Your task to perform on an android device: Open maps Image 0: 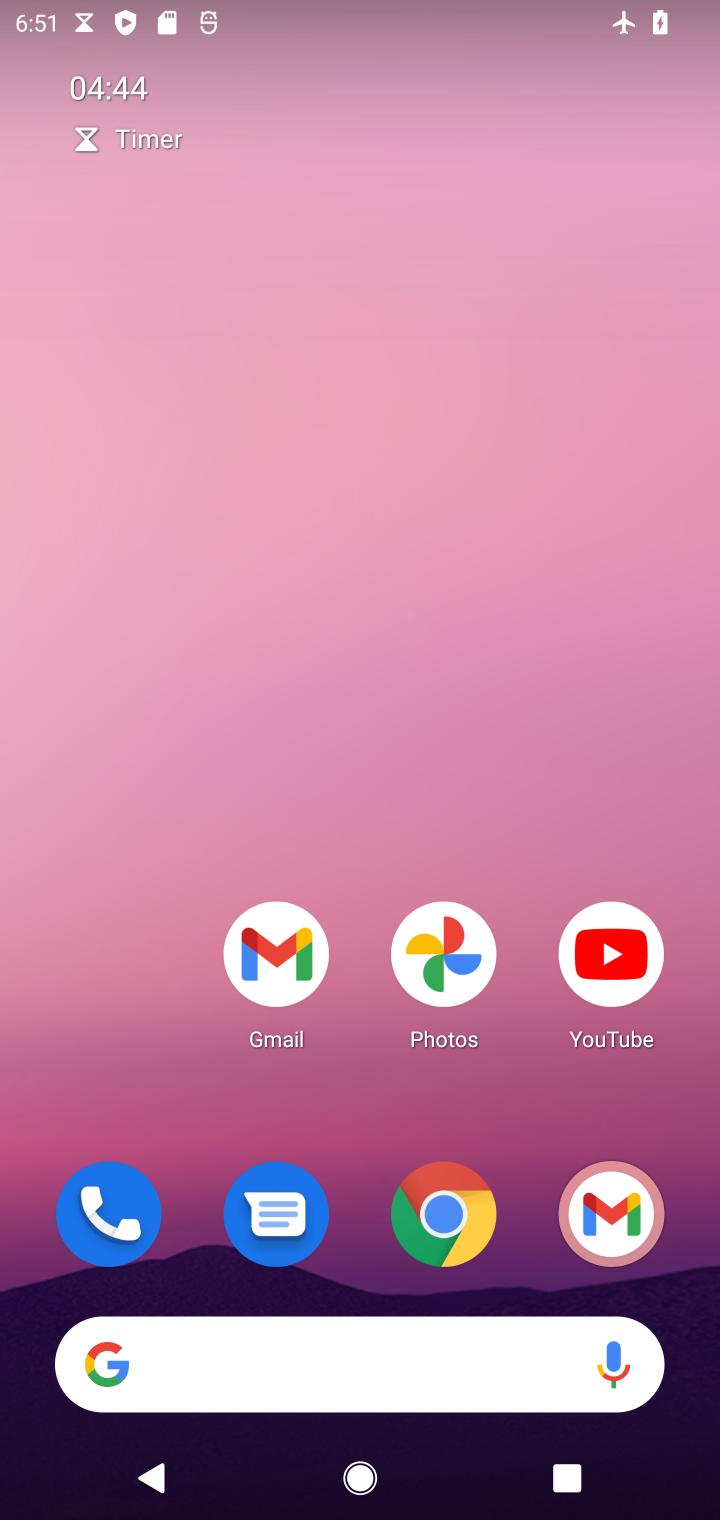
Step 0: drag from (352, 1295) to (428, 499)
Your task to perform on an android device: Open maps Image 1: 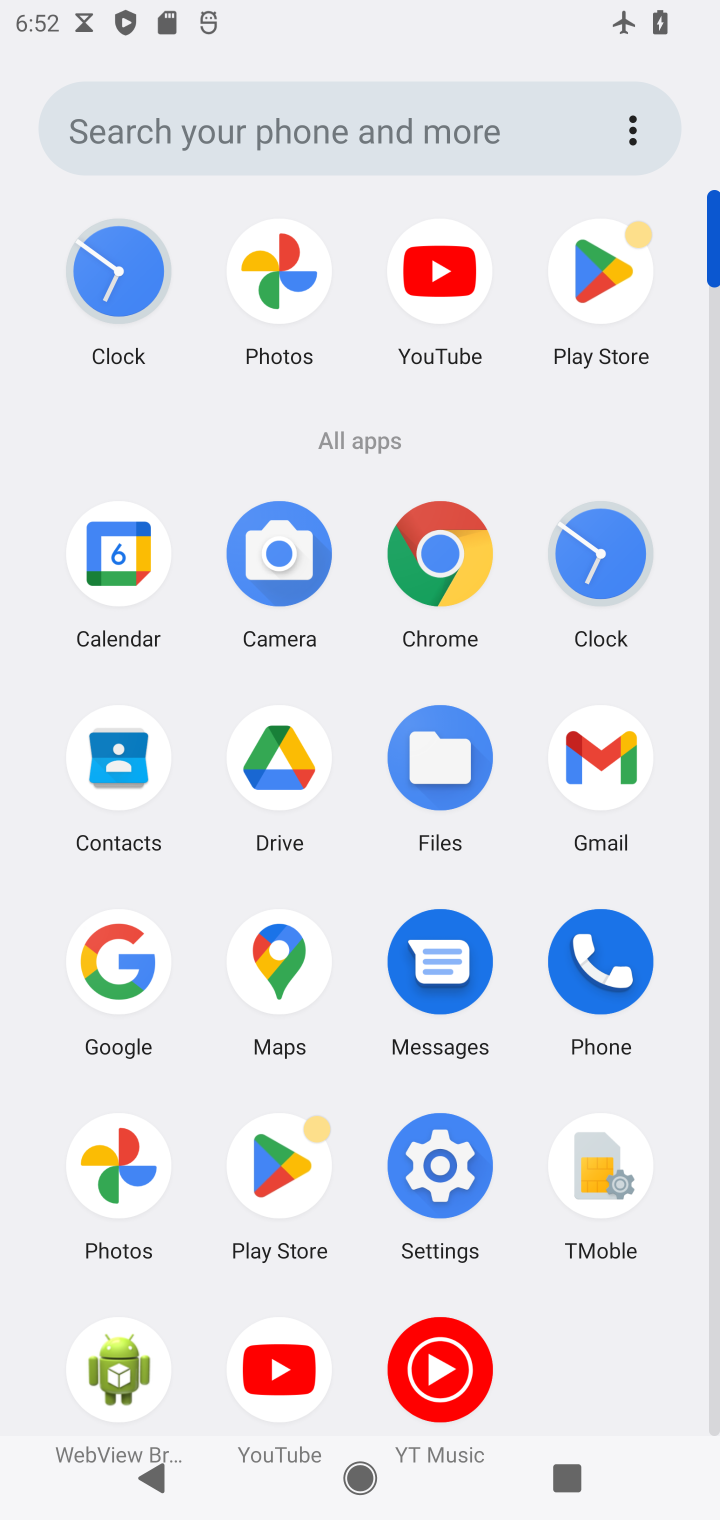
Step 1: click (251, 991)
Your task to perform on an android device: Open maps Image 2: 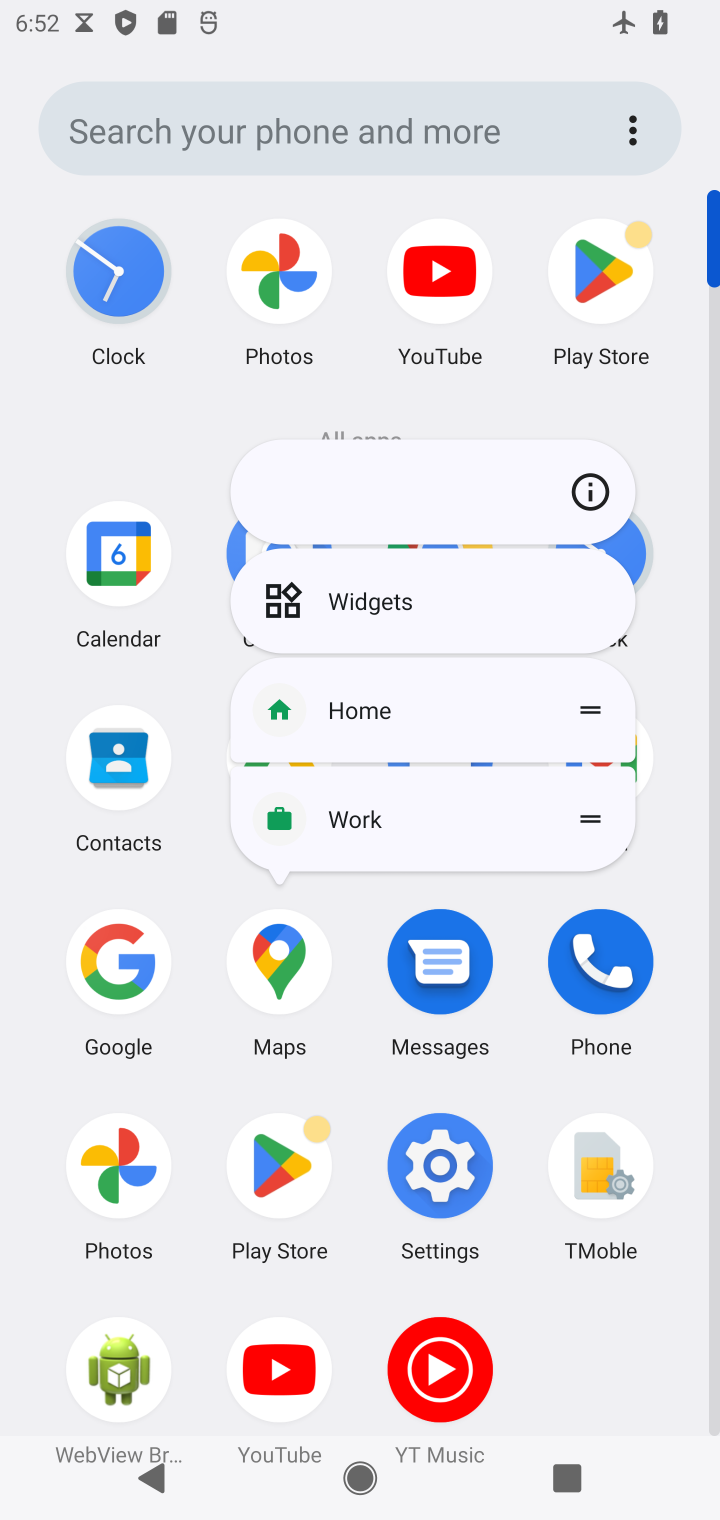
Step 2: click (265, 973)
Your task to perform on an android device: Open maps Image 3: 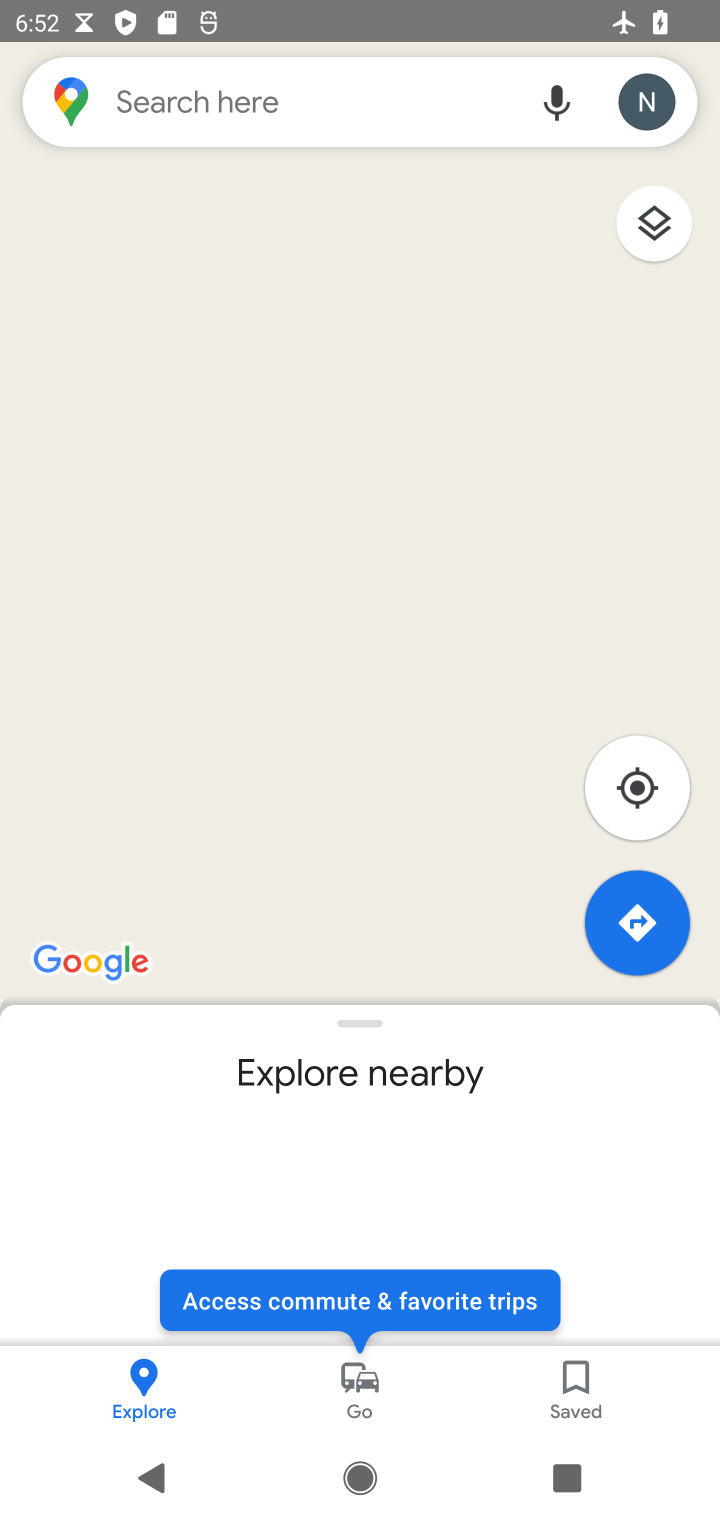
Step 3: task complete